Your task to perform on an android device: Search for seafood restaurants on Google Maps Image 0: 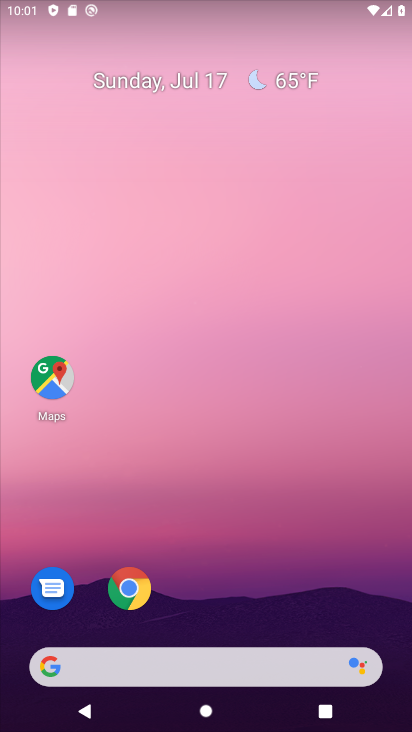
Step 0: click (52, 380)
Your task to perform on an android device: Search for seafood restaurants on Google Maps Image 1: 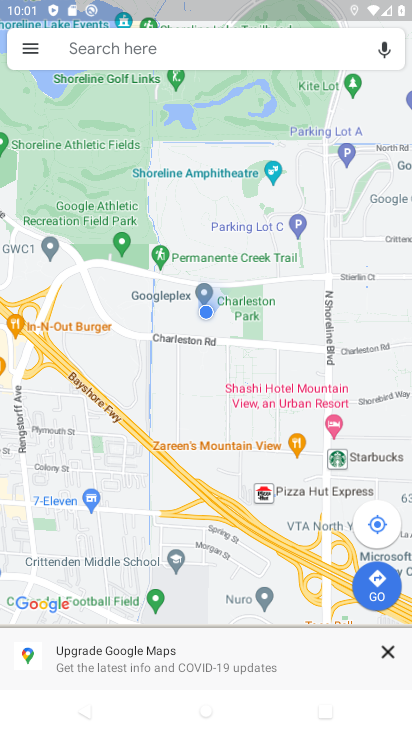
Step 1: click (96, 50)
Your task to perform on an android device: Search for seafood restaurants on Google Maps Image 2: 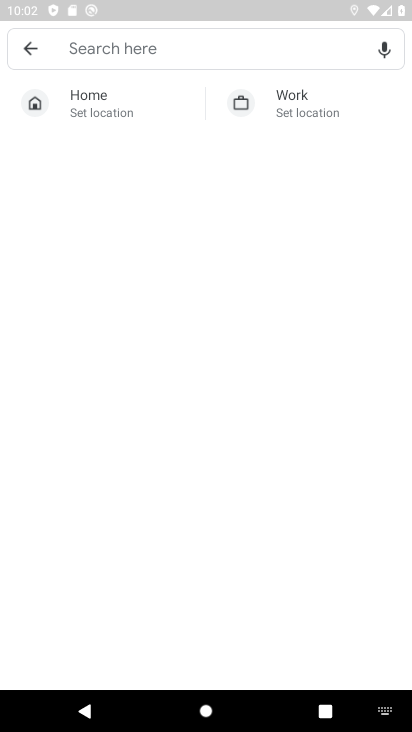
Step 2: type "seafood restaurants"
Your task to perform on an android device: Search for seafood restaurants on Google Maps Image 3: 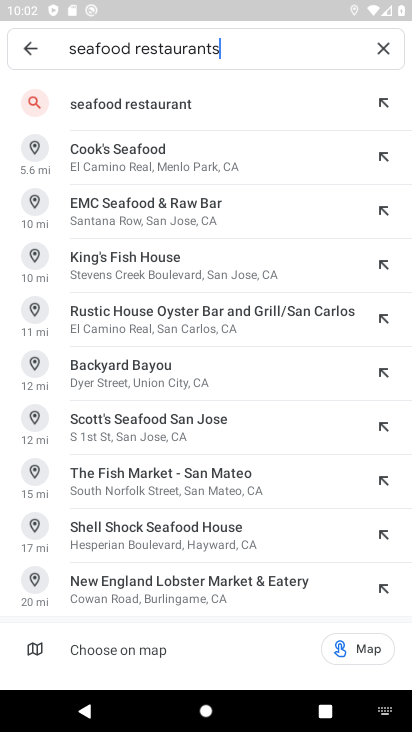
Step 3: click (149, 96)
Your task to perform on an android device: Search for seafood restaurants on Google Maps Image 4: 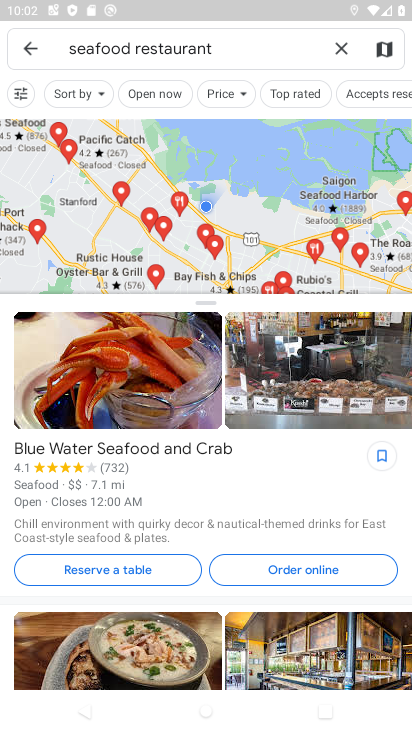
Step 4: task complete